Your task to perform on an android device: turn pop-ups off in chrome Image 0: 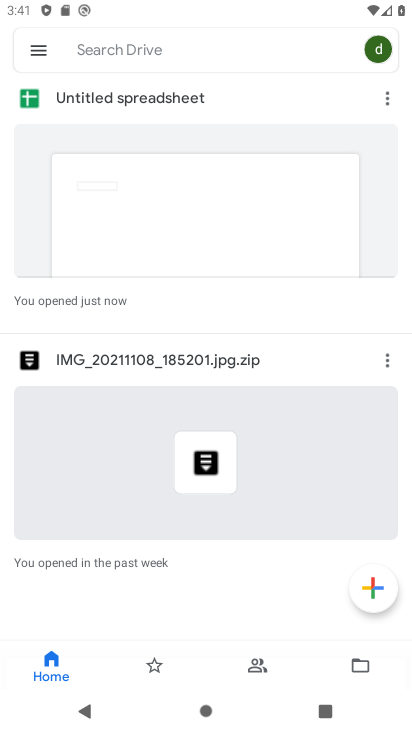
Step 0: press home button
Your task to perform on an android device: turn pop-ups off in chrome Image 1: 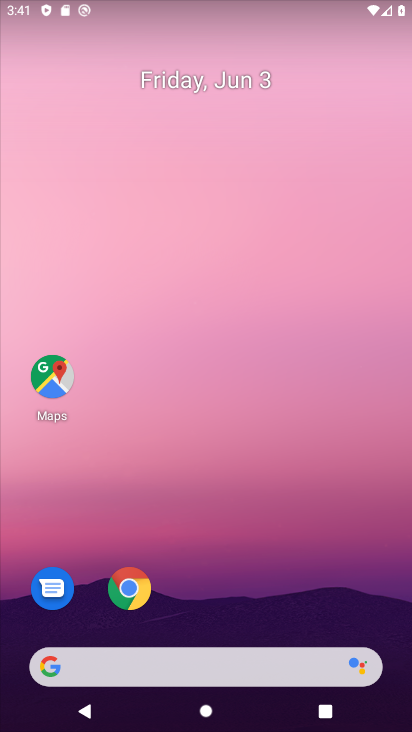
Step 1: click (133, 592)
Your task to perform on an android device: turn pop-ups off in chrome Image 2: 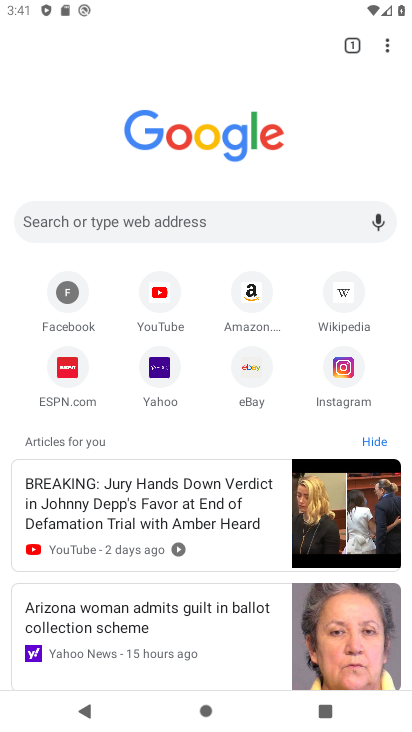
Step 2: click (392, 45)
Your task to perform on an android device: turn pop-ups off in chrome Image 3: 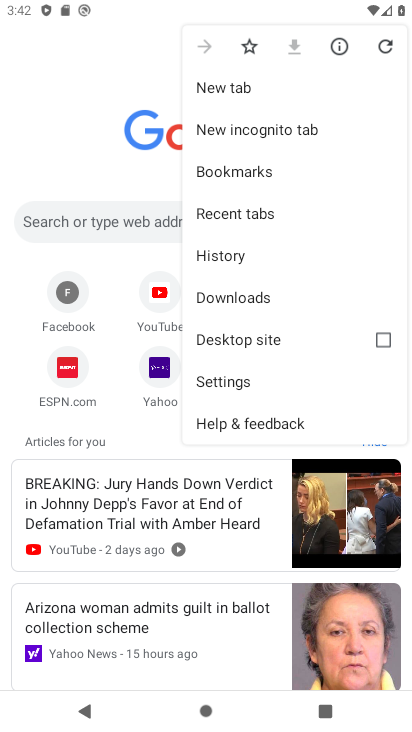
Step 3: click (264, 381)
Your task to perform on an android device: turn pop-ups off in chrome Image 4: 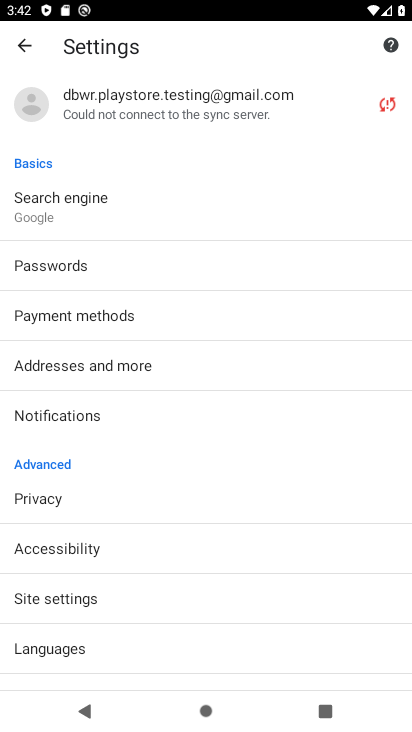
Step 4: click (139, 598)
Your task to perform on an android device: turn pop-ups off in chrome Image 5: 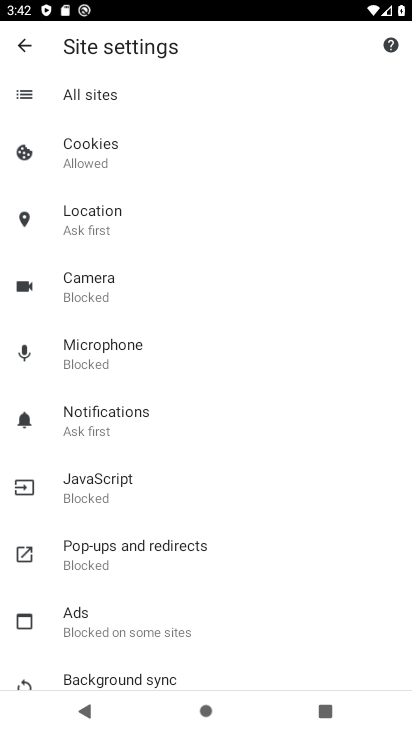
Step 5: click (140, 566)
Your task to perform on an android device: turn pop-ups off in chrome Image 6: 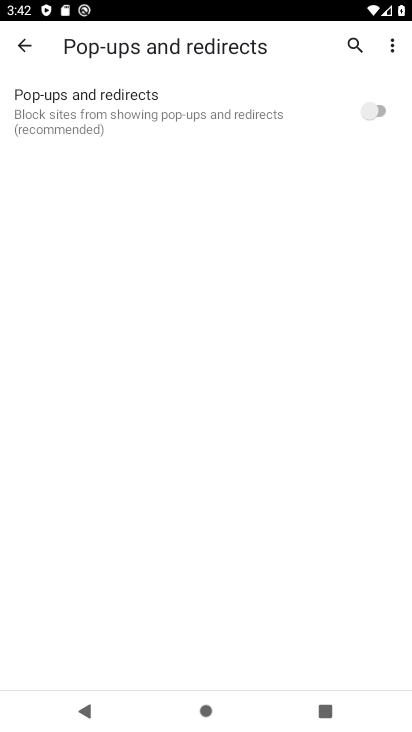
Step 6: task complete